Your task to perform on an android device: What's on my calendar today? Image 0: 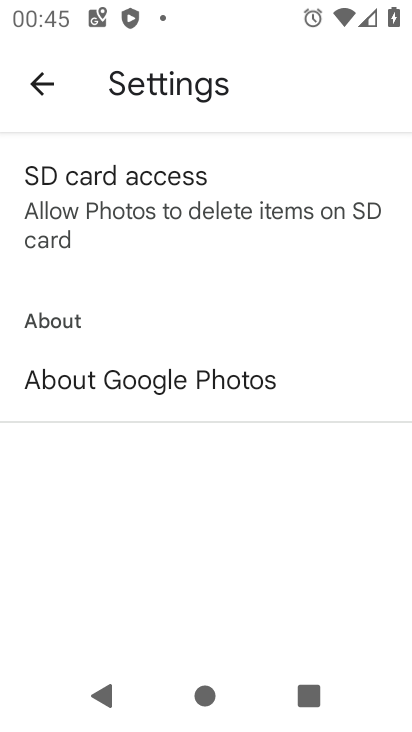
Step 0: press home button
Your task to perform on an android device: What's on my calendar today? Image 1: 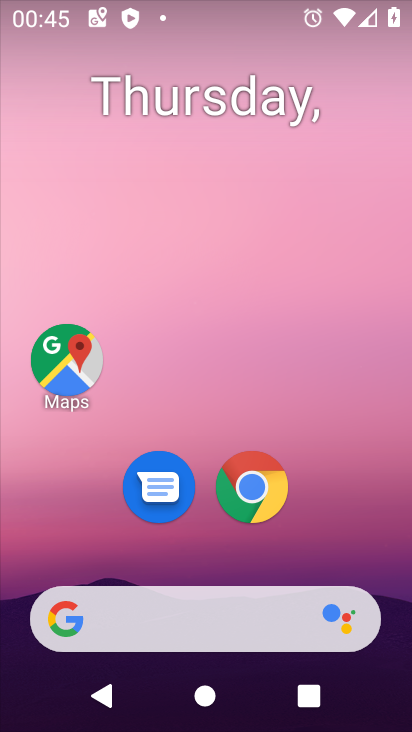
Step 1: drag from (342, 460) to (344, 13)
Your task to perform on an android device: What's on my calendar today? Image 2: 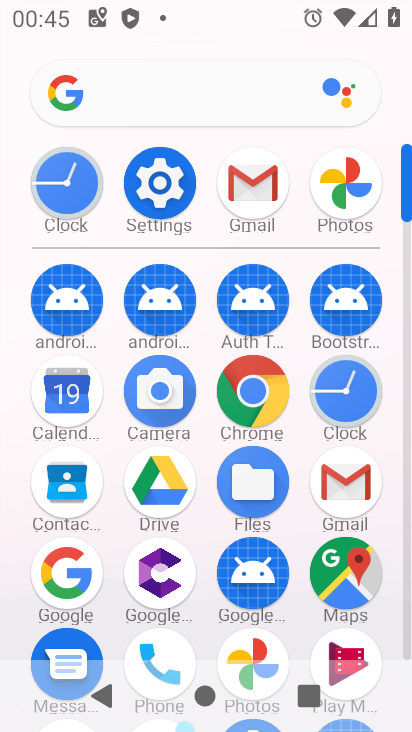
Step 2: click (63, 402)
Your task to perform on an android device: What's on my calendar today? Image 3: 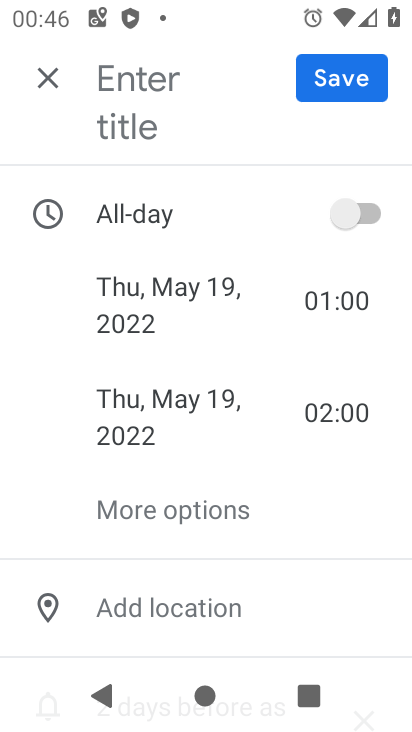
Step 3: click (40, 83)
Your task to perform on an android device: What's on my calendar today? Image 4: 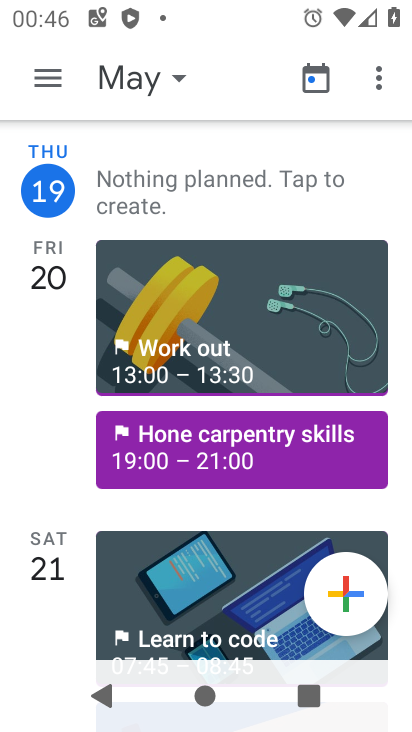
Step 4: click (157, 195)
Your task to perform on an android device: What's on my calendar today? Image 5: 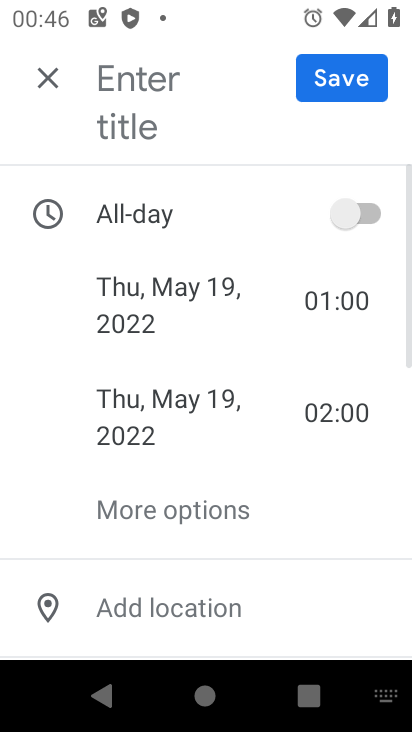
Step 5: task complete